Your task to perform on an android device: turn on data saver in the chrome app Image 0: 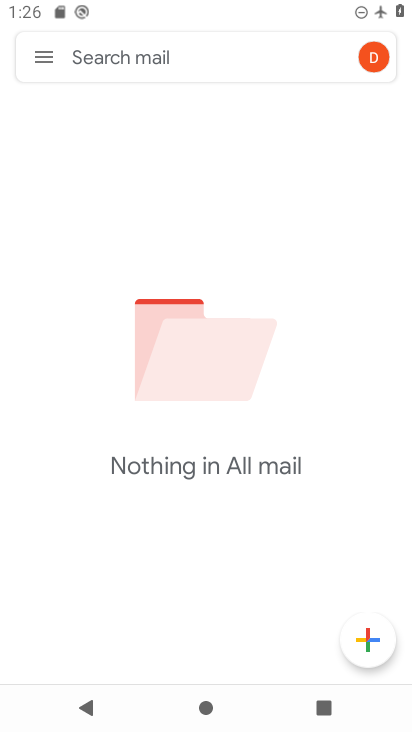
Step 0: press home button
Your task to perform on an android device: turn on data saver in the chrome app Image 1: 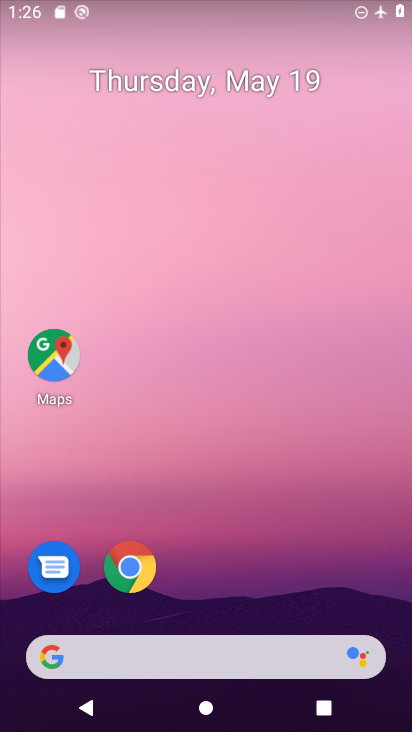
Step 1: click (250, 563)
Your task to perform on an android device: turn on data saver in the chrome app Image 2: 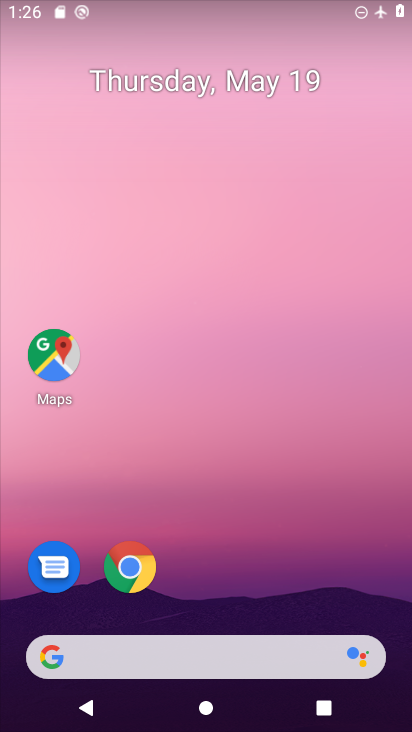
Step 2: click (136, 561)
Your task to perform on an android device: turn on data saver in the chrome app Image 3: 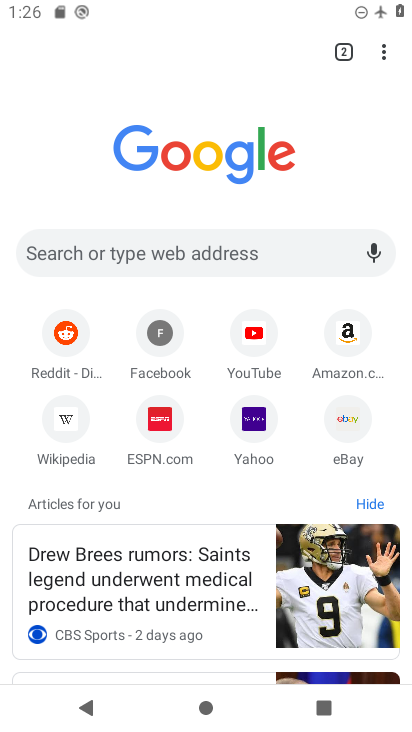
Step 3: click (385, 54)
Your task to perform on an android device: turn on data saver in the chrome app Image 4: 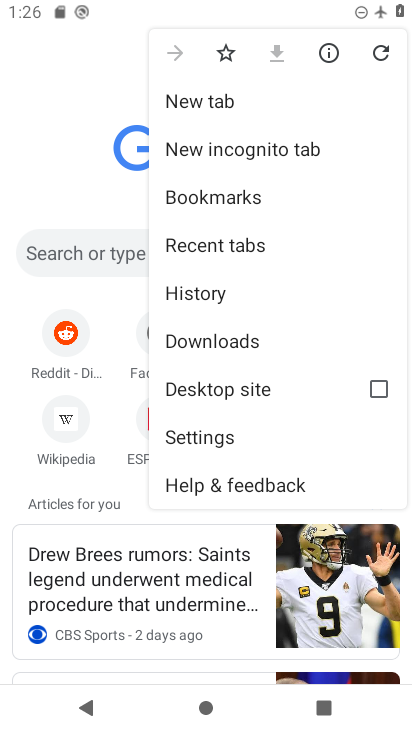
Step 4: click (232, 429)
Your task to perform on an android device: turn on data saver in the chrome app Image 5: 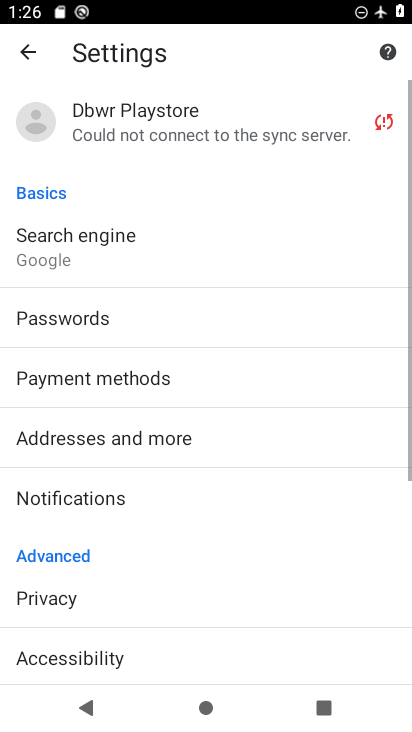
Step 5: drag from (208, 514) to (231, 206)
Your task to perform on an android device: turn on data saver in the chrome app Image 6: 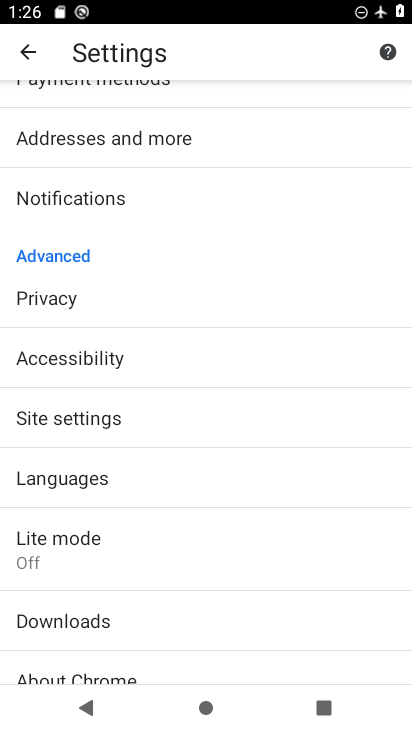
Step 6: click (155, 544)
Your task to perform on an android device: turn on data saver in the chrome app Image 7: 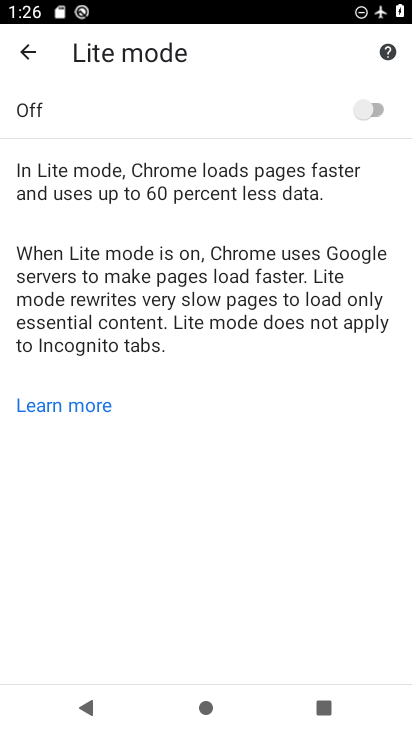
Step 7: click (381, 109)
Your task to perform on an android device: turn on data saver in the chrome app Image 8: 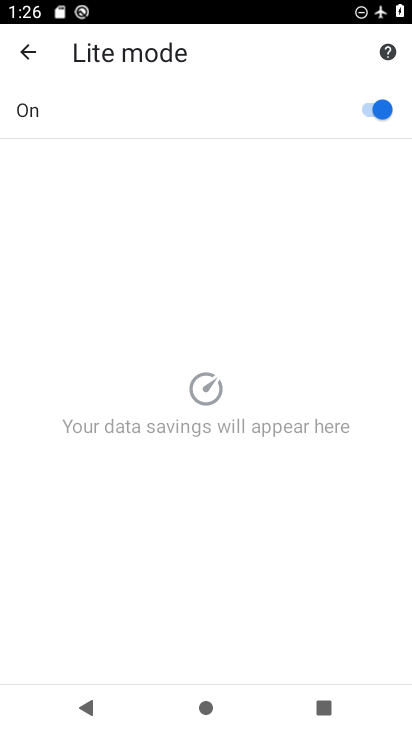
Step 8: task complete